Your task to perform on an android device: What's the weather? Image 0: 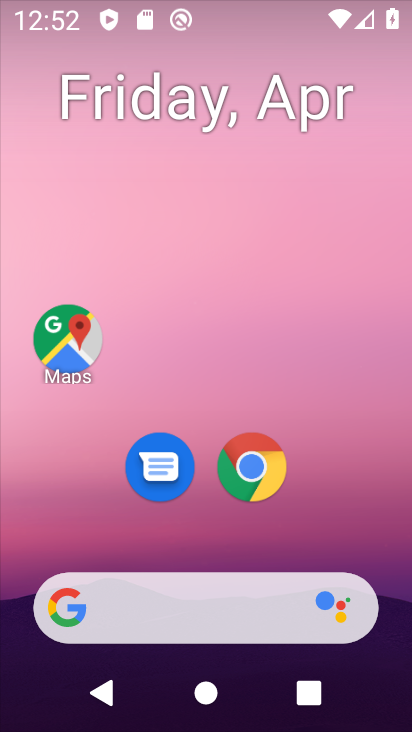
Step 0: drag from (148, 511) to (256, 117)
Your task to perform on an android device: What's the weather? Image 1: 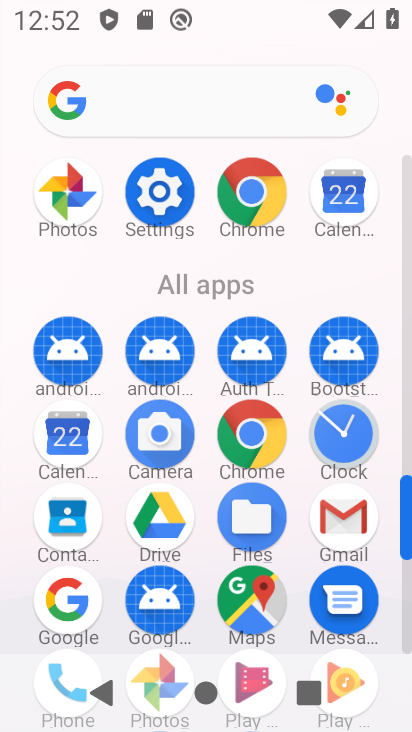
Step 1: drag from (201, 502) to (231, 308)
Your task to perform on an android device: What's the weather? Image 2: 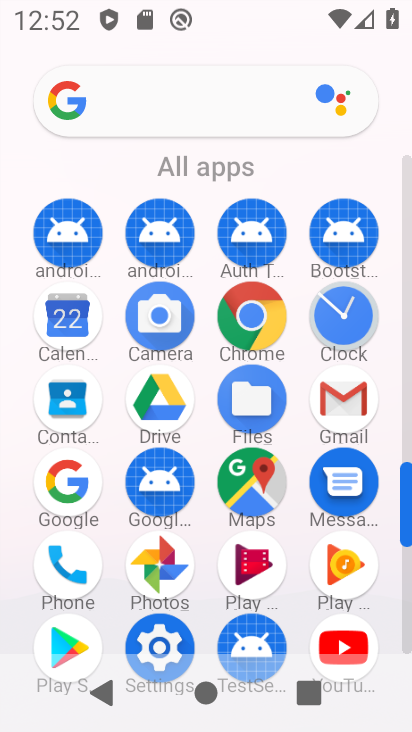
Step 2: click (68, 481)
Your task to perform on an android device: What's the weather? Image 3: 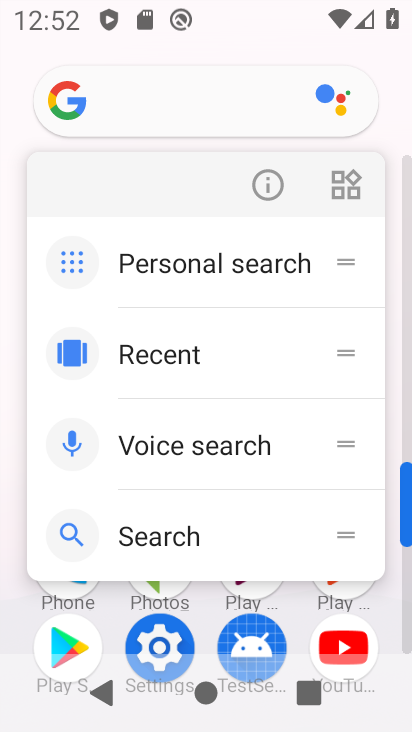
Step 3: press back button
Your task to perform on an android device: What's the weather? Image 4: 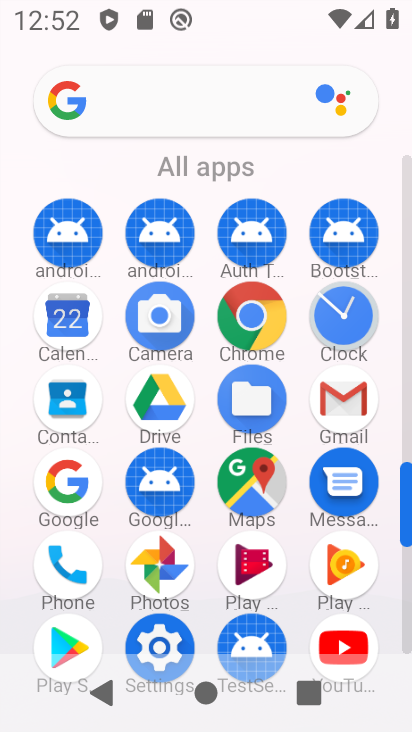
Step 4: click (86, 476)
Your task to perform on an android device: What's the weather? Image 5: 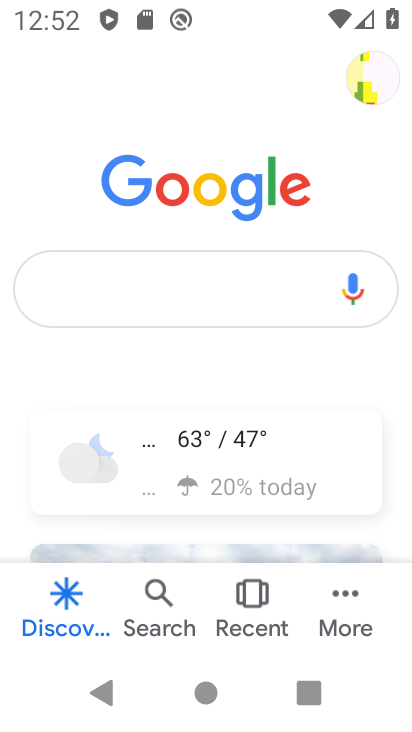
Step 5: click (186, 489)
Your task to perform on an android device: What's the weather? Image 6: 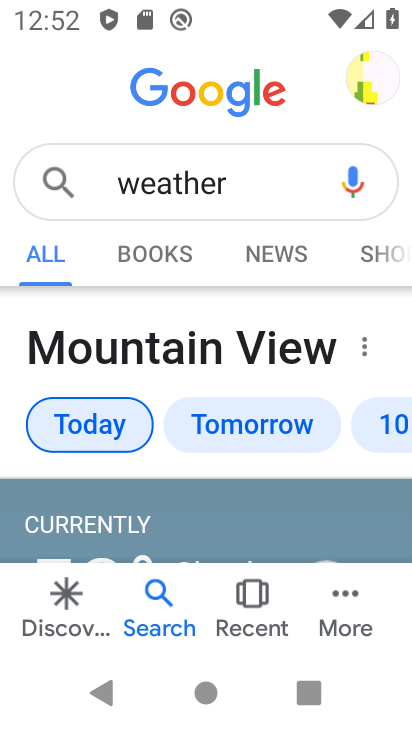
Step 6: task complete